Your task to perform on an android device: empty trash in the gmail app Image 0: 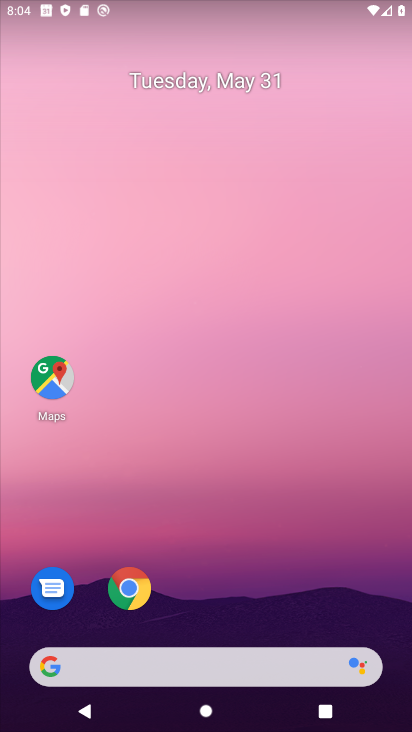
Step 0: drag from (275, 529) to (299, 126)
Your task to perform on an android device: empty trash in the gmail app Image 1: 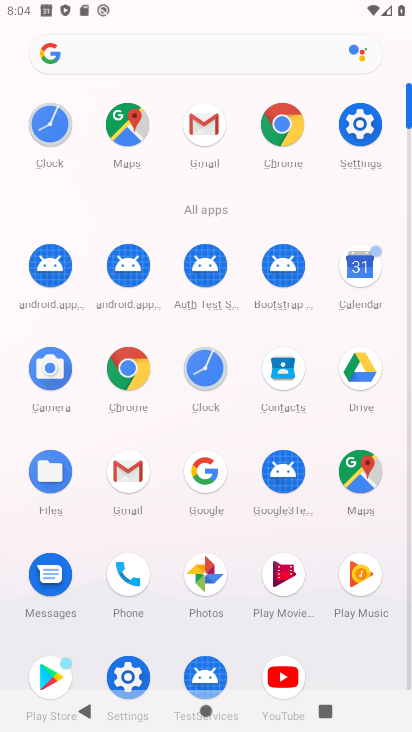
Step 1: click (207, 128)
Your task to perform on an android device: empty trash in the gmail app Image 2: 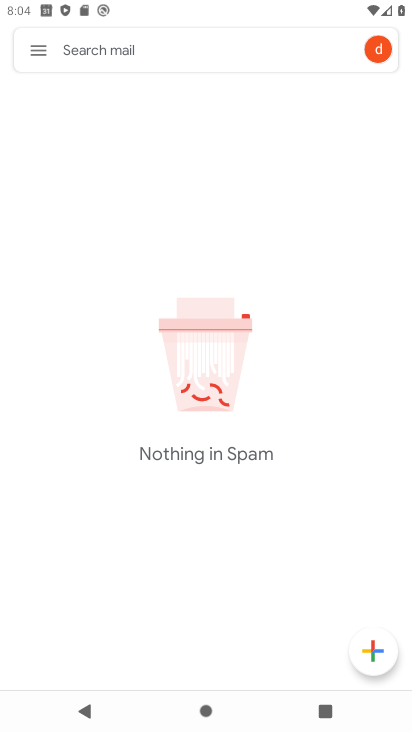
Step 2: click (43, 48)
Your task to perform on an android device: empty trash in the gmail app Image 3: 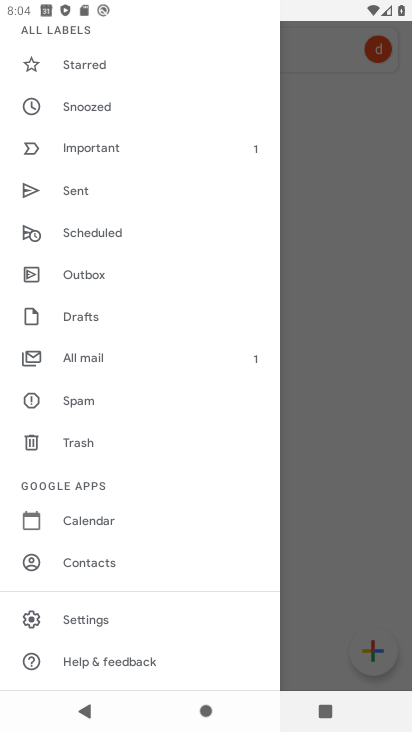
Step 3: click (92, 437)
Your task to perform on an android device: empty trash in the gmail app Image 4: 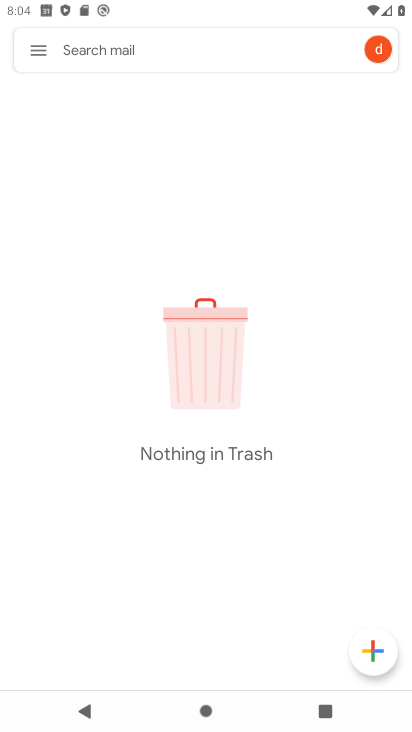
Step 4: task complete